Your task to perform on an android device: manage bookmarks in the chrome app Image 0: 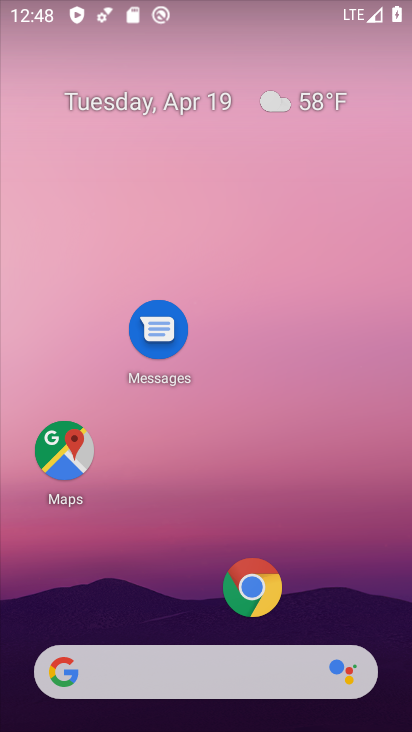
Step 0: drag from (194, 553) to (174, 178)
Your task to perform on an android device: manage bookmarks in the chrome app Image 1: 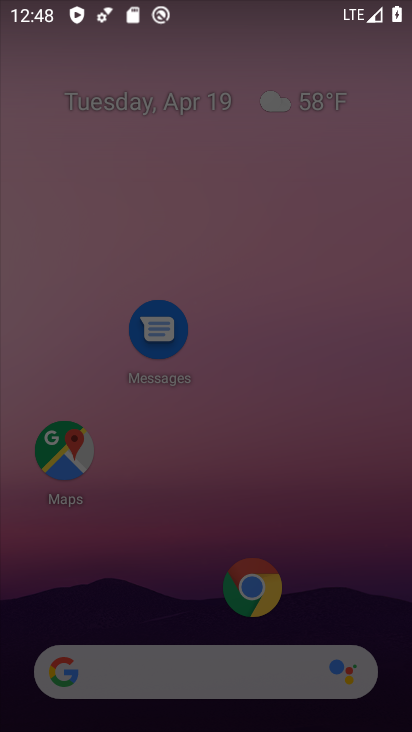
Step 1: click (239, 473)
Your task to perform on an android device: manage bookmarks in the chrome app Image 2: 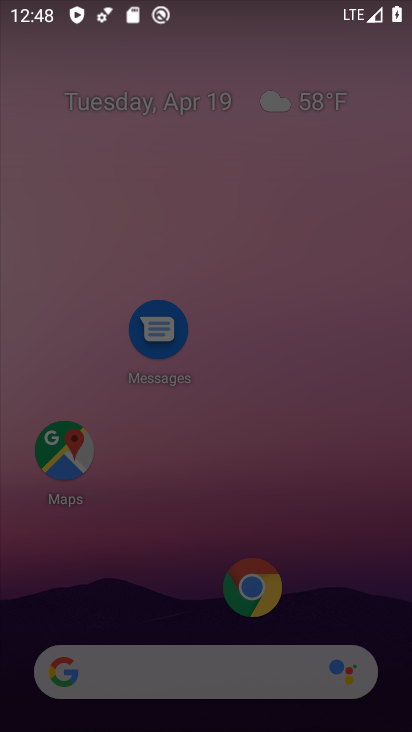
Step 2: press home button
Your task to perform on an android device: manage bookmarks in the chrome app Image 3: 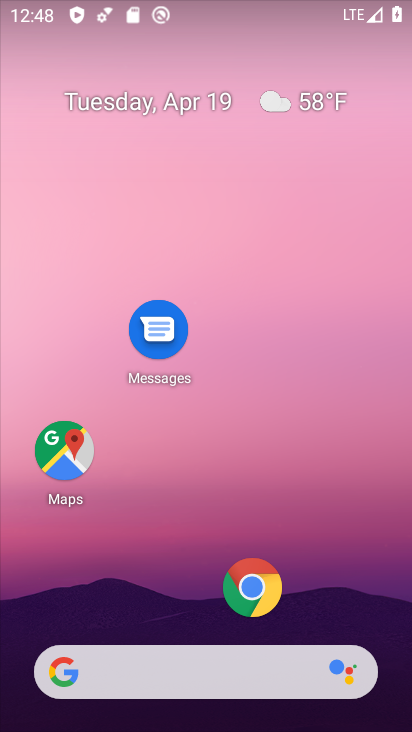
Step 3: drag from (181, 524) to (220, 159)
Your task to perform on an android device: manage bookmarks in the chrome app Image 4: 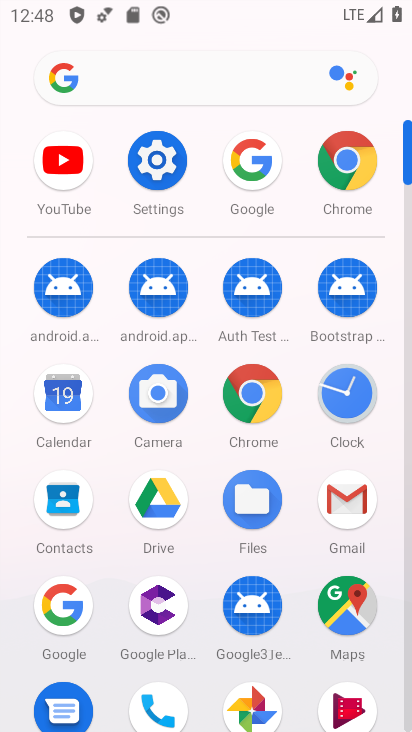
Step 4: click (350, 155)
Your task to perform on an android device: manage bookmarks in the chrome app Image 5: 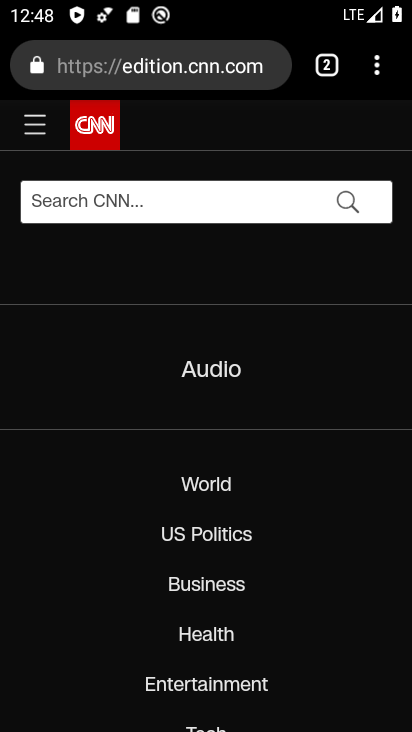
Step 5: click (373, 64)
Your task to perform on an android device: manage bookmarks in the chrome app Image 6: 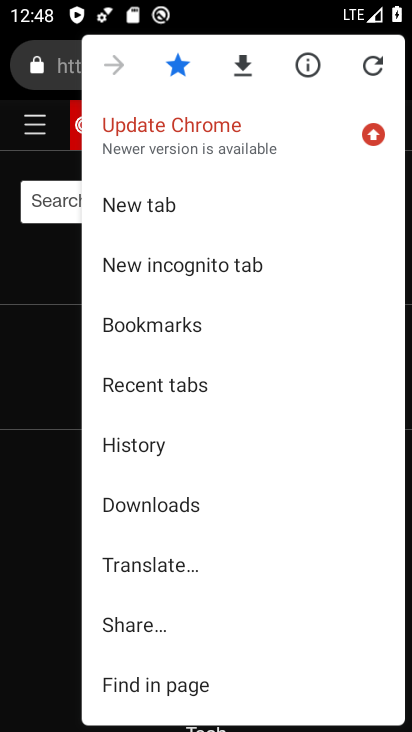
Step 6: drag from (303, 542) to (274, 372)
Your task to perform on an android device: manage bookmarks in the chrome app Image 7: 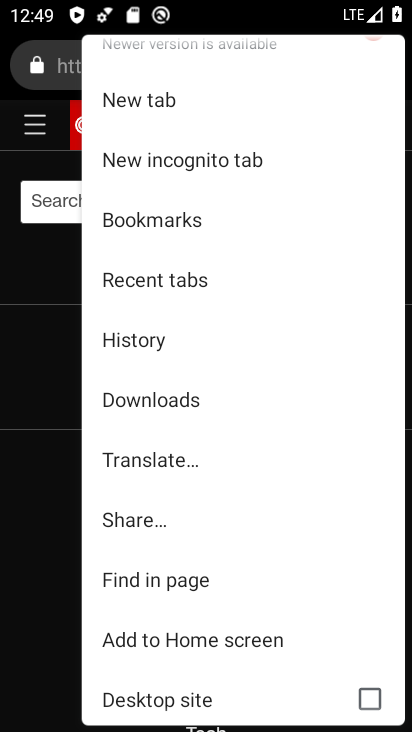
Step 7: click (166, 220)
Your task to perform on an android device: manage bookmarks in the chrome app Image 8: 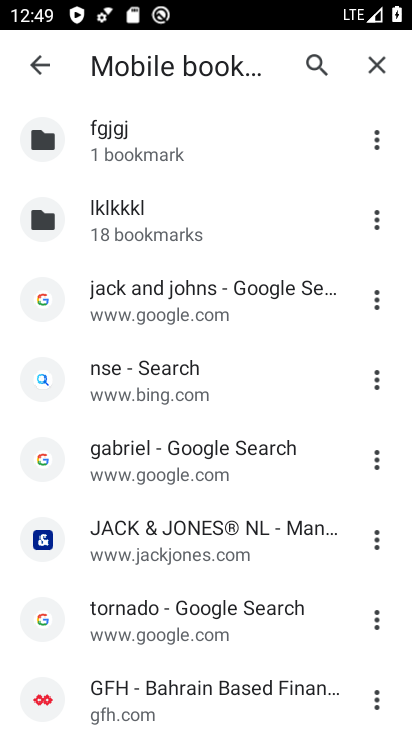
Step 8: click (371, 377)
Your task to perform on an android device: manage bookmarks in the chrome app Image 9: 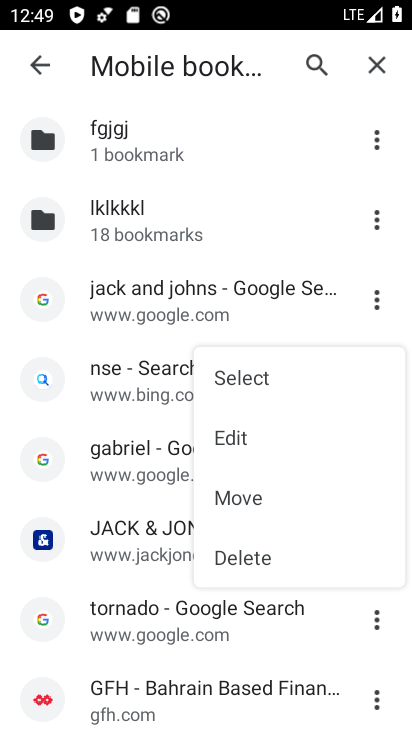
Step 9: click (276, 557)
Your task to perform on an android device: manage bookmarks in the chrome app Image 10: 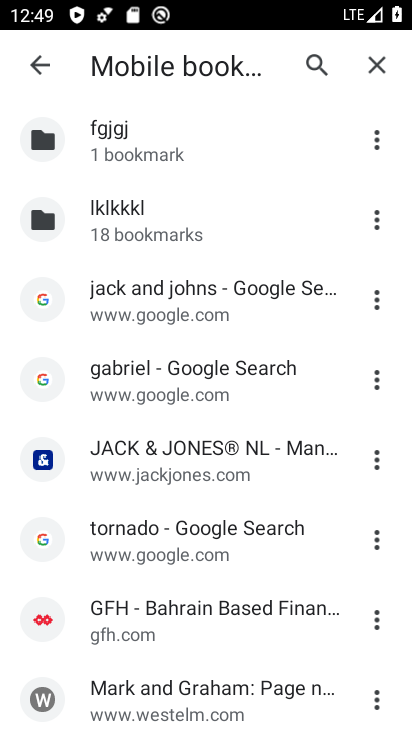
Step 10: task complete